Your task to perform on an android device: toggle data saver in the chrome app Image 0: 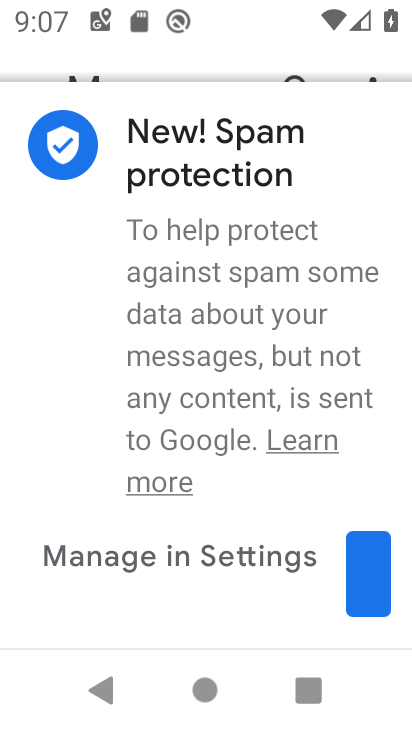
Step 0: click (360, 557)
Your task to perform on an android device: toggle data saver in the chrome app Image 1: 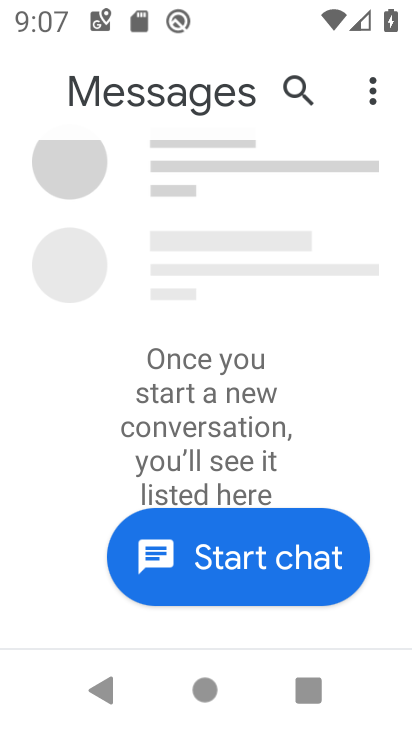
Step 1: press home button
Your task to perform on an android device: toggle data saver in the chrome app Image 2: 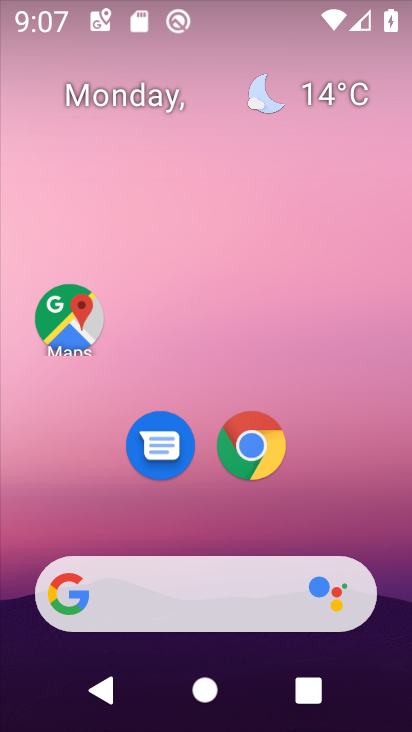
Step 2: click (248, 436)
Your task to perform on an android device: toggle data saver in the chrome app Image 3: 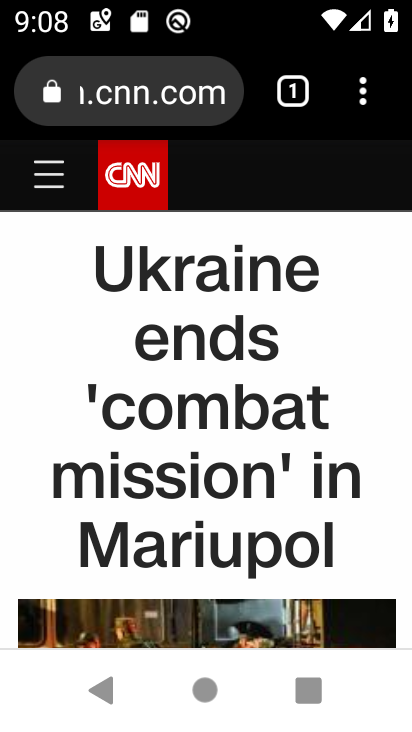
Step 3: click (365, 94)
Your task to perform on an android device: toggle data saver in the chrome app Image 4: 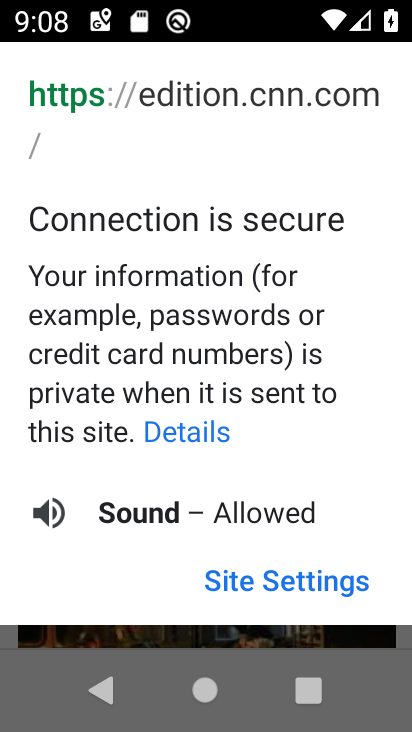
Step 4: click (285, 592)
Your task to perform on an android device: toggle data saver in the chrome app Image 5: 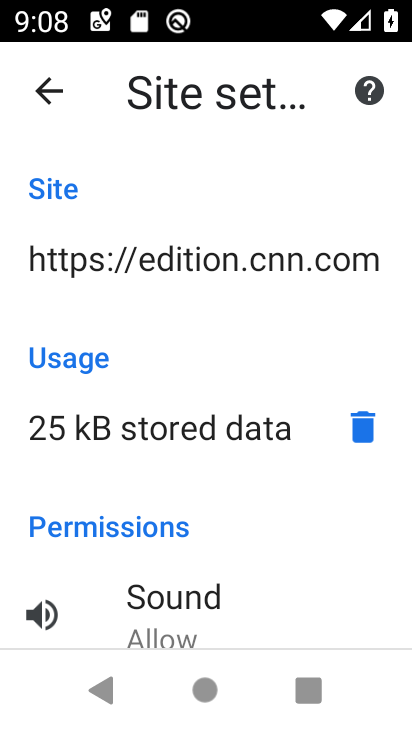
Step 5: drag from (251, 607) to (246, 279)
Your task to perform on an android device: toggle data saver in the chrome app Image 6: 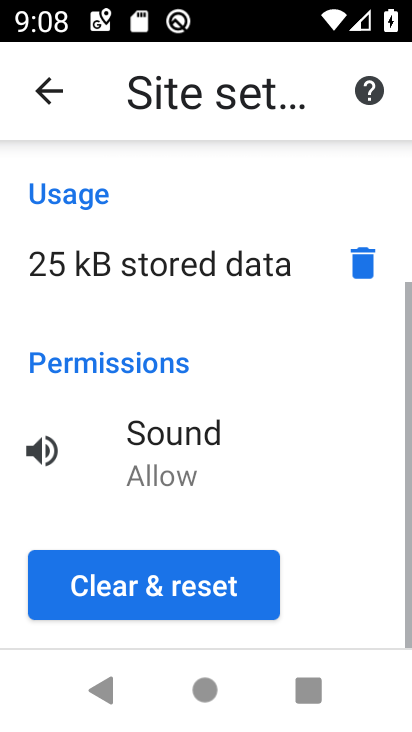
Step 6: click (62, 101)
Your task to perform on an android device: toggle data saver in the chrome app Image 7: 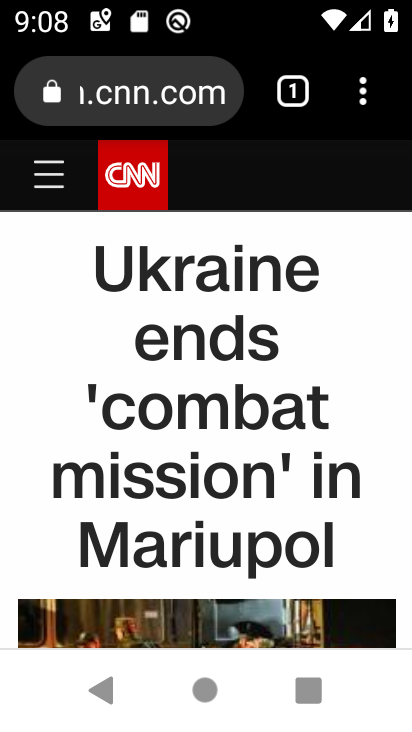
Step 7: click (365, 96)
Your task to perform on an android device: toggle data saver in the chrome app Image 8: 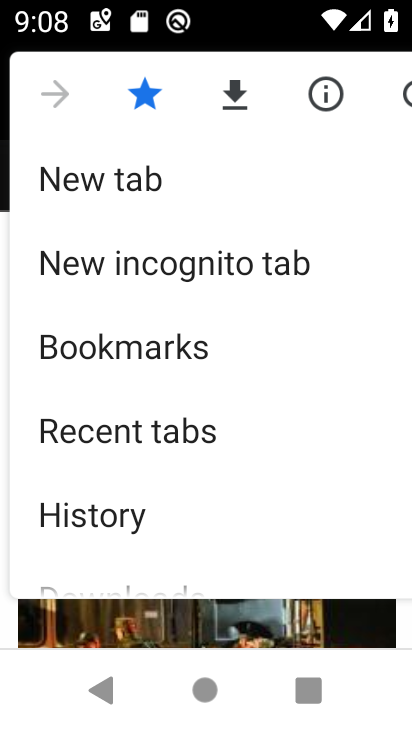
Step 8: drag from (175, 557) to (187, 88)
Your task to perform on an android device: toggle data saver in the chrome app Image 9: 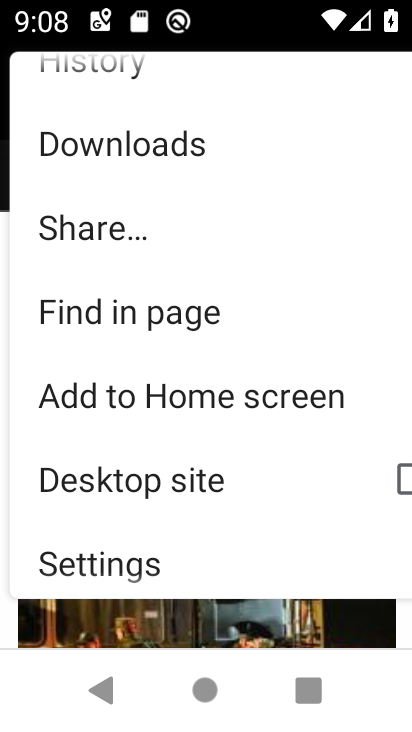
Step 9: click (178, 567)
Your task to perform on an android device: toggle data saver in the chrome app Image 10: 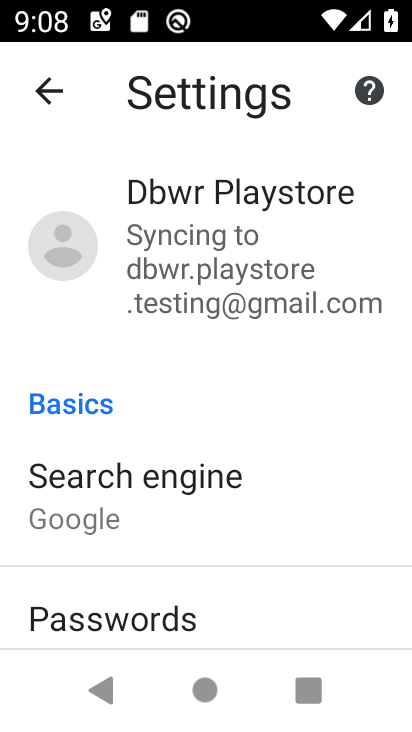
Step 10: drag from (224, 568) to (235, 128)
Your task to perform on an android device: toggle data saver in the chrome app Image 11: 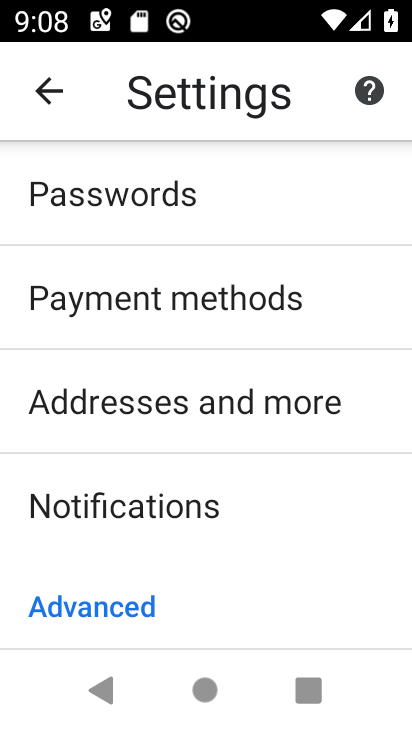
Step 11: drag from (215, 605) to (234, 57)
Your task to perform on an android device: toggle data saver in the chrome app Image 12: 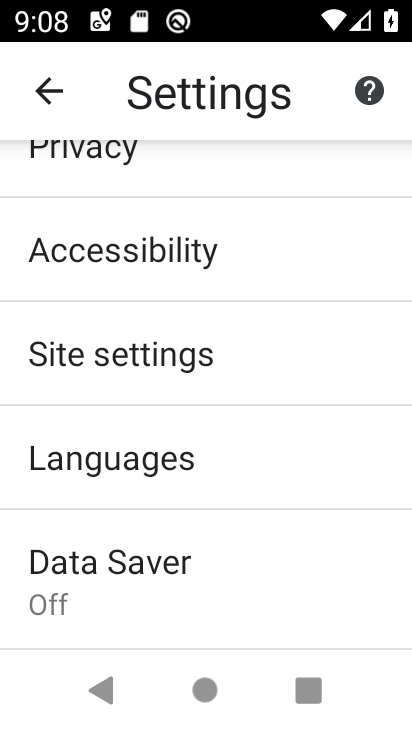
Step 12: click (126, 589)
Your task to perform on an android device: toggle data saver in the chrome app Image 13: 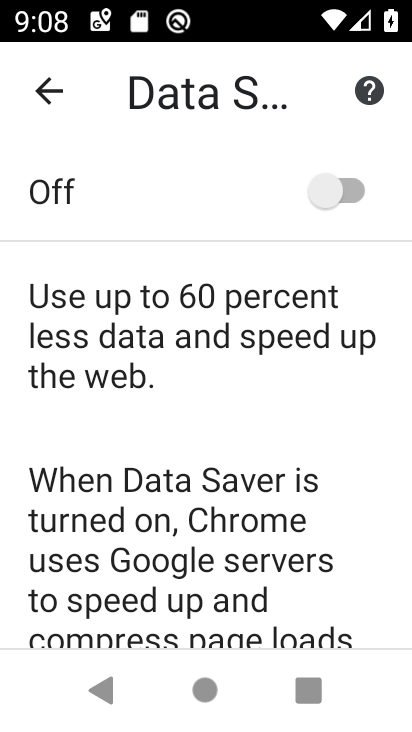
Step 13: click (343, 190)
Your task to perform on an android device: toggle data saver in the chrome app Image 14: 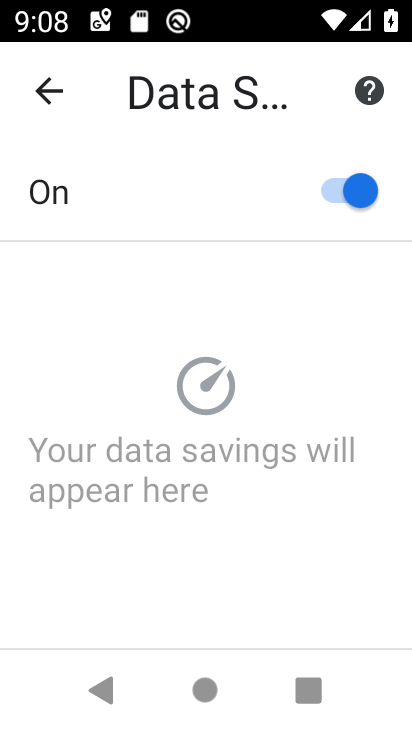
Step 14: task complete